Your task to perform on an android device: Do I have any events this weekend? Image 0: 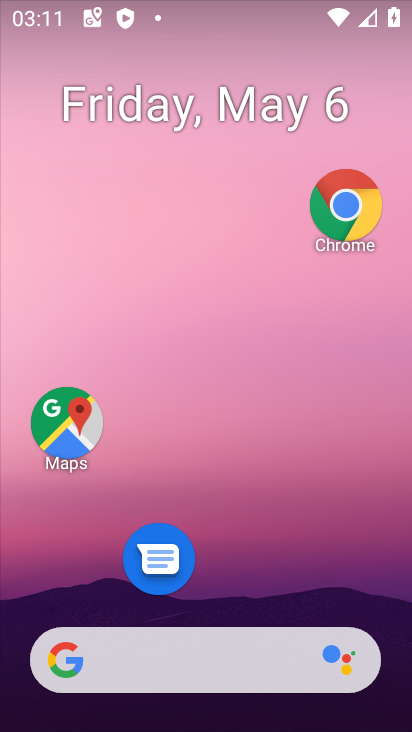
Step 0: drag from (182, 674) to (318, 60)
Your task to perform on an android device: Do I have any events this weekend? Image 1: 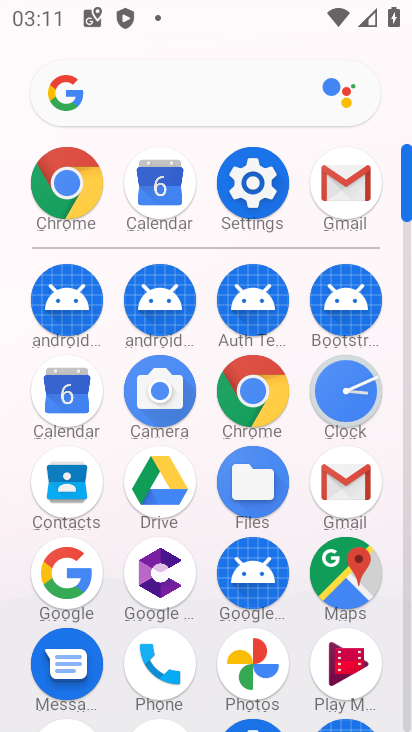
Step 1: click (71, 403)
Your task to perform on an android device: Do I have any events this weekend? Image 2: 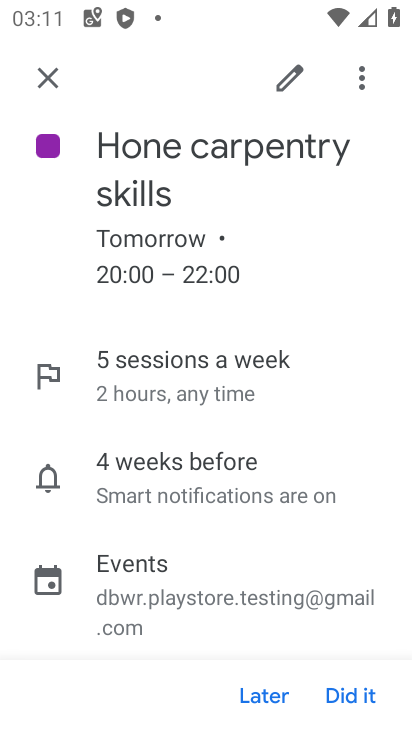
Step 2: click (43, 74)
Your task to perform on an android device: Do I have any events this weekend? Image 3: 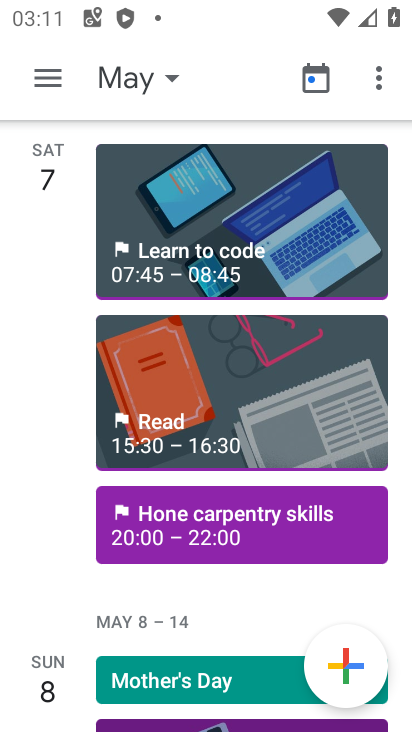
Step 3: click (140, 83)
Your task to perform on an android device: Do I have any events this weekend? Image 4: 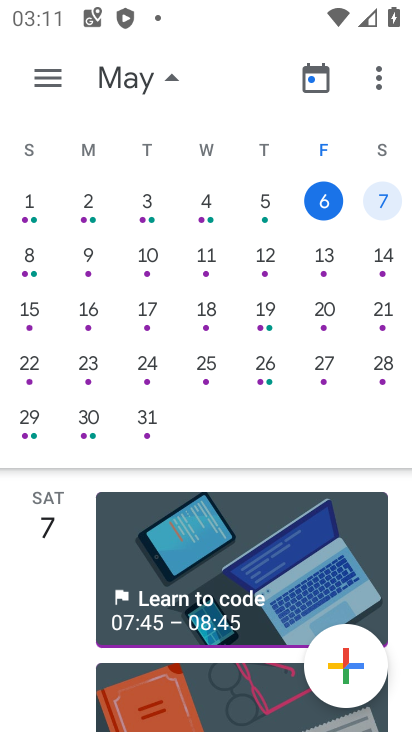
Step 4: click (384, 199)
Your task to perform on an android device: Do I have any events this weekend? Image 5: 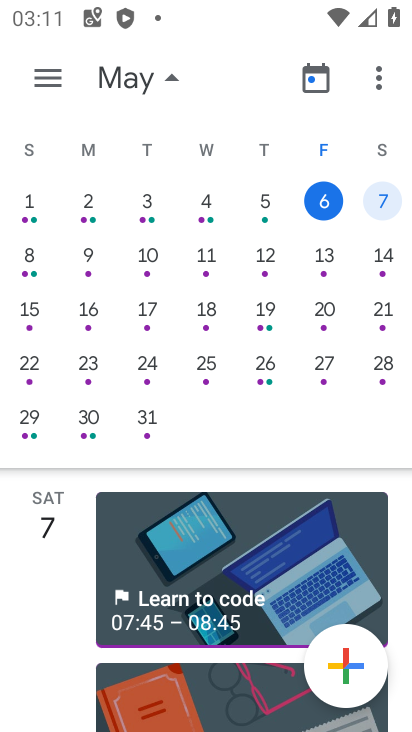
Step 5: click (54, 86)
Your task to perform on an android device: Do I have any events this weekend? Image 6: 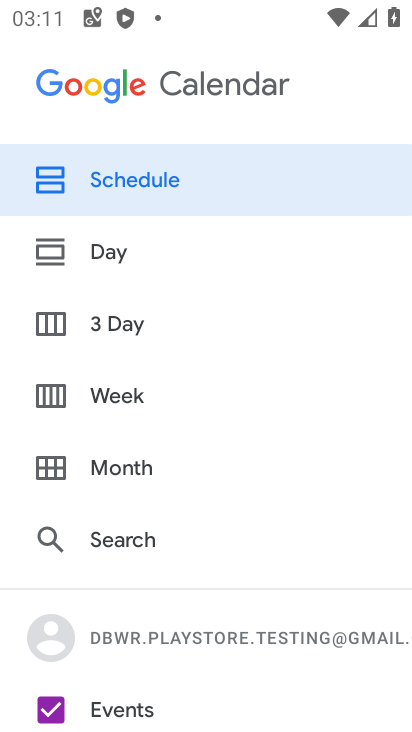
Step 6: click (133, 176)
Your task to perform on an android device: Do I have any events this weekend? Image 7: 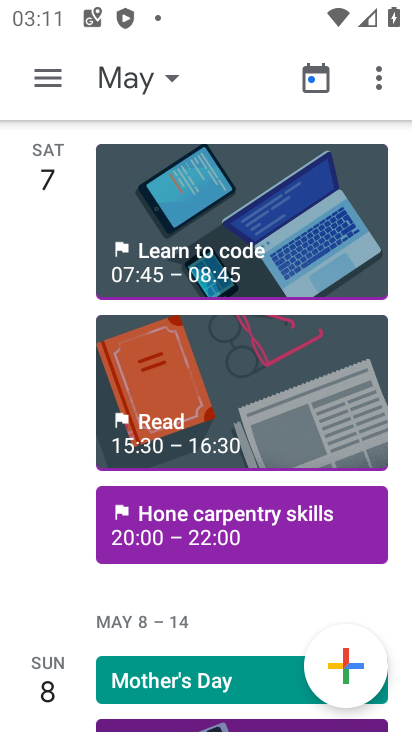
Step 7: click (237, 500)
Your task to perform on an android device: Do I have any events this weekend? Image 8: 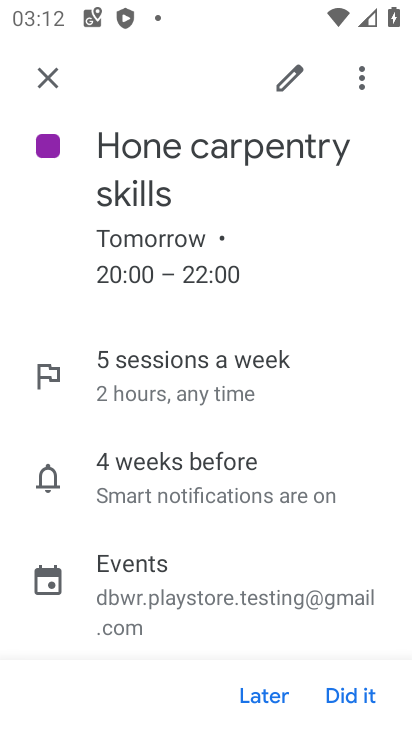
Step 8: task complete